Your task to perform on an android device: change the clock display to digital Image 0: 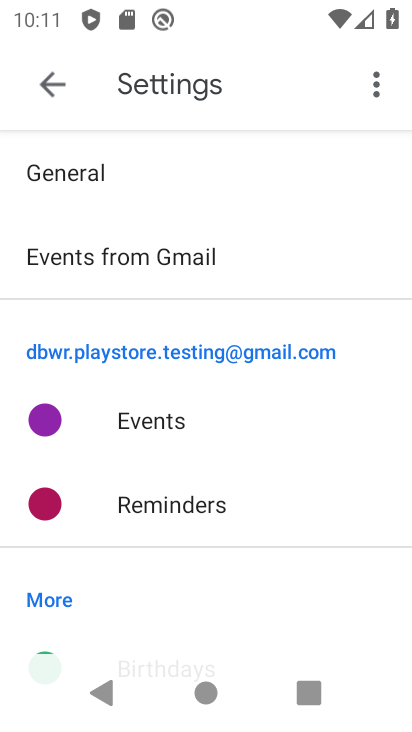
Step 0: press home button
Your task to perform on an android device: change the clock display to digital Image 1: 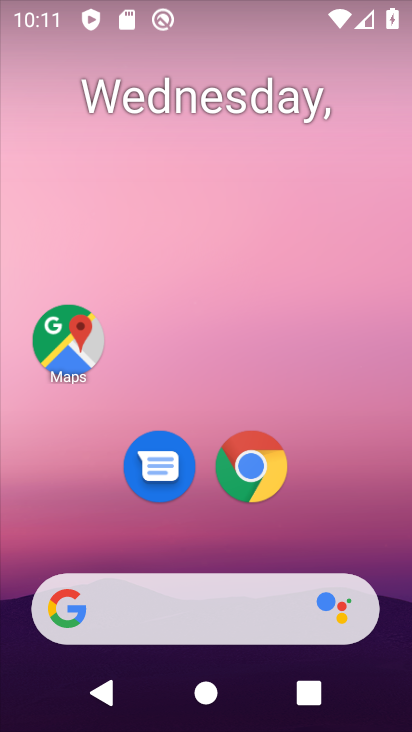
Step 1: drag from (230, 725) to (232, 203)
Your task to perform on an android device: change the clock display to digital Image 2: 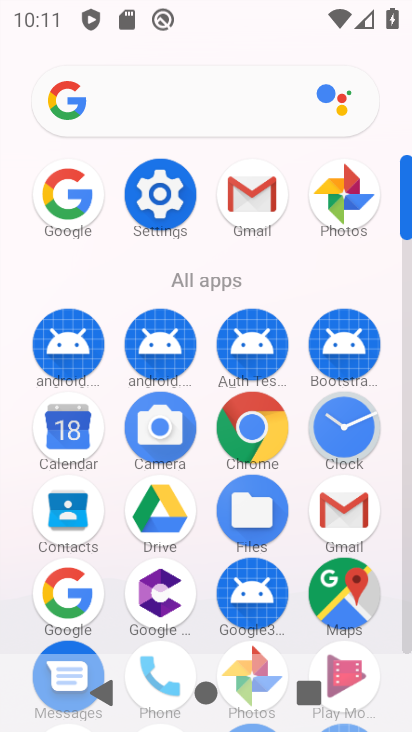
Step 2: click (348, 432)
Your task to perform on an android device: change the clock display to digital Image 3: 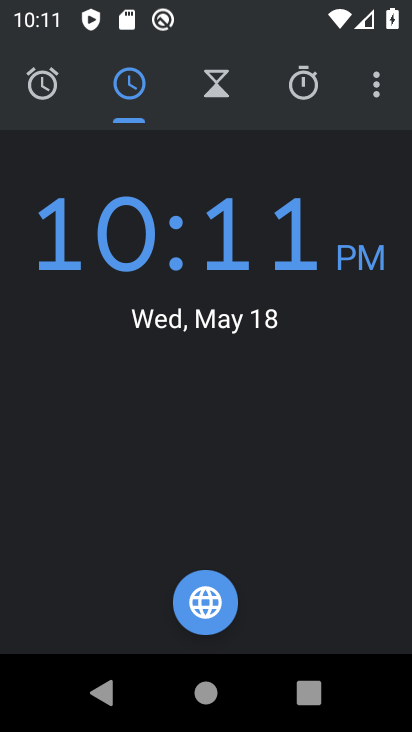
Step 3: click (376, 88)
Your task to perform on an android device: change the clock display to digital Image 4: 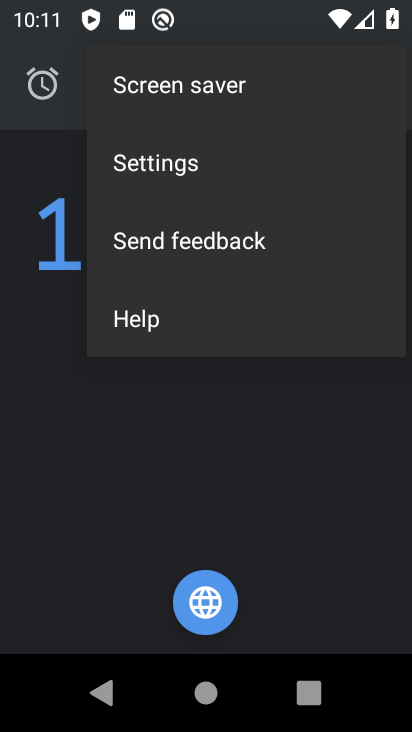
Step 4: click (155, 169)
Your task to perform on an android device: change the clock display to digital Image 5: 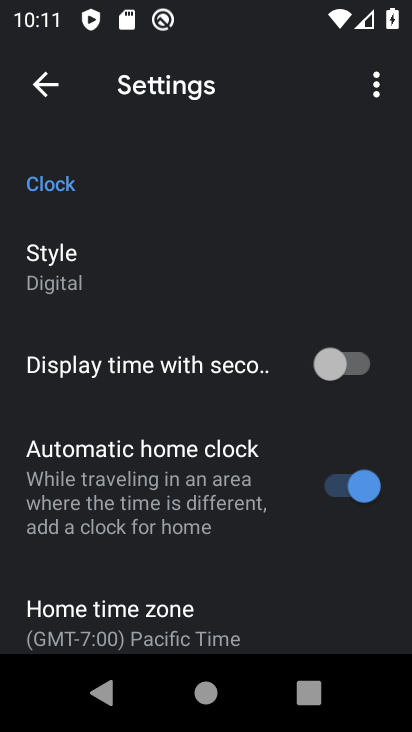
Step 5: task complete